Your task to perform on an android device: What's on my calendar tomorrow? Image 0: 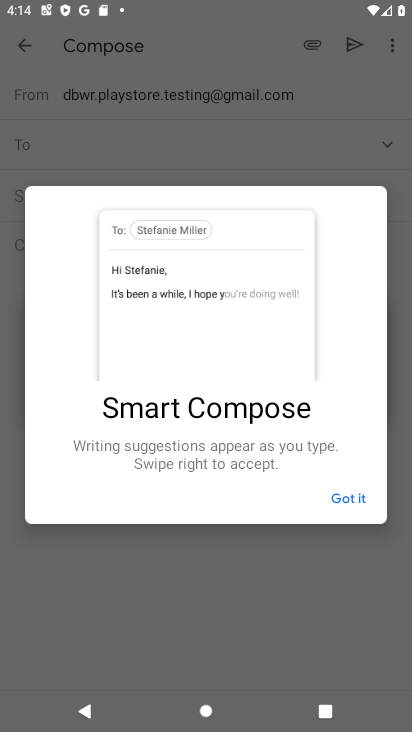
Step 0: press home button
Your task to perform on an android device: What's on my calendar tomorrow? Image 1: 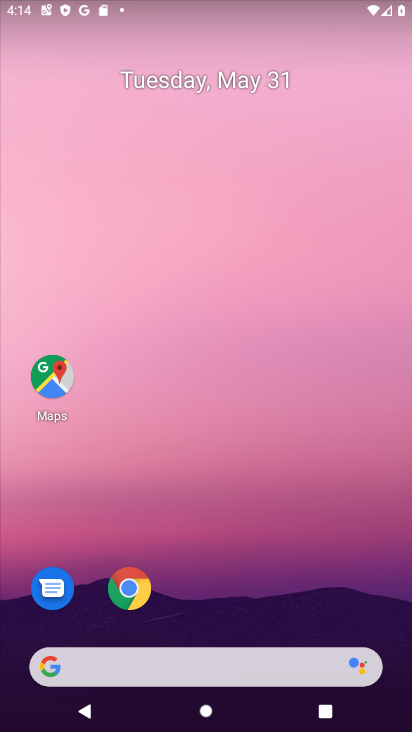
Step 1: click (164, 75)
Your task to perform on an android device: What's on my calendar tomorrow? Image 2: 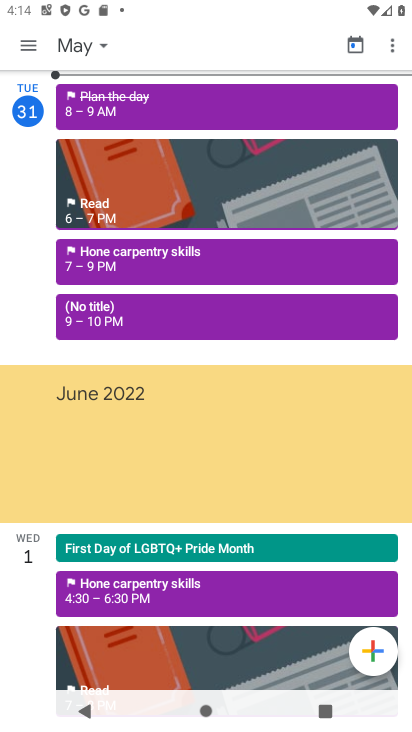
Step 2: click (64, 61)
Your task to perform on an android device: What's on my calendar tomorrow? Image 3: 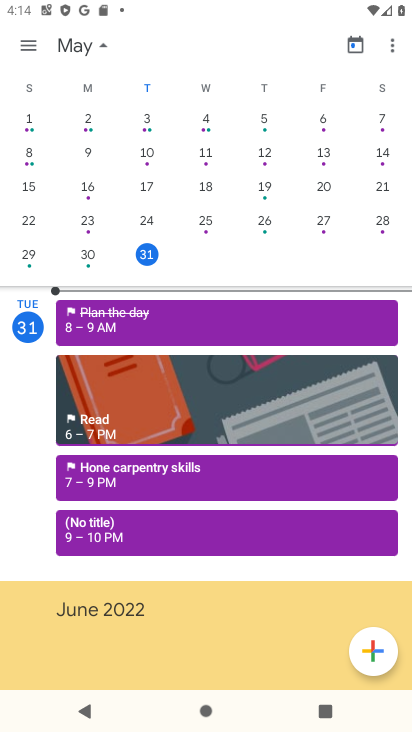
Step 3: drag from (285, 255) to (101, 206)
Your task to perform on an android device: What's on my calendar tomorrow? Image 4: 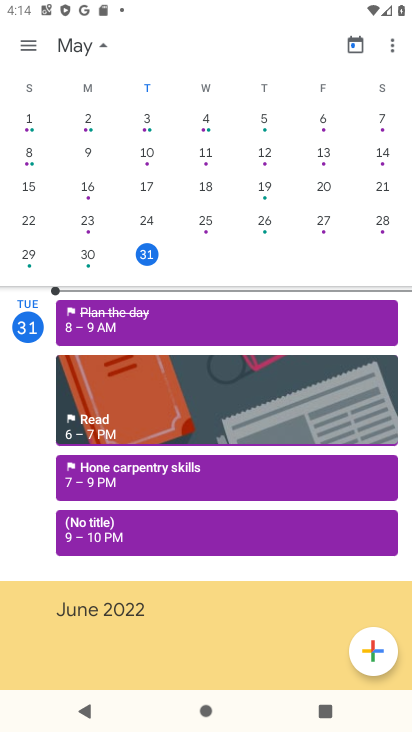
Step 4: click (221, 252)
Your task to perform on an android device: What's on my calendar tomorrow? Image 5: 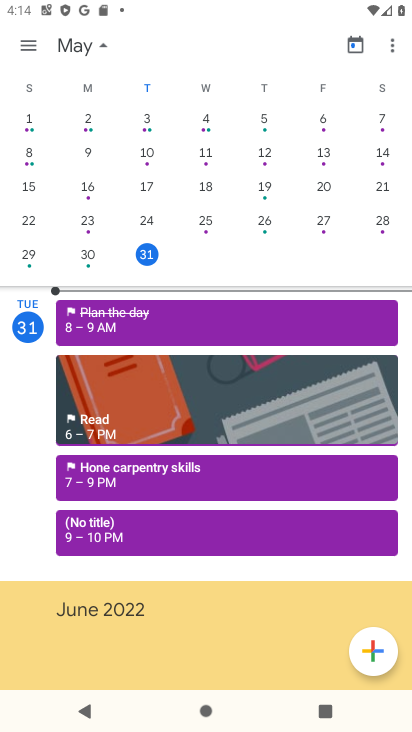
Step 5: drag from (221, 252) to (3, 249)
Your task to perform on an android device: What's on my calendar tomorrow? Image 6: 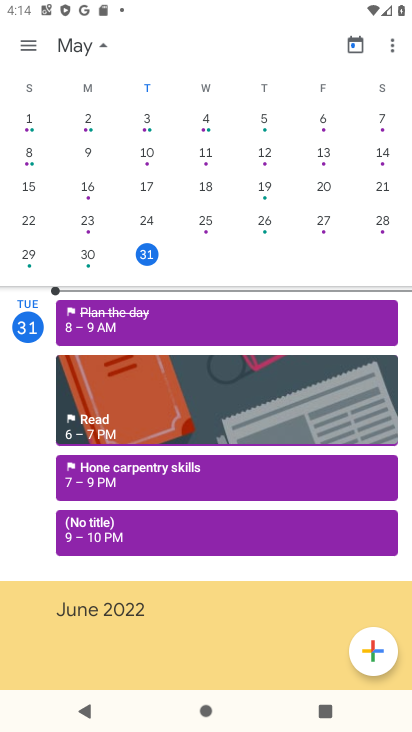
Step 6: drag from (39, 574) to (188, 214)
Your task to perform on an android device: What's on my calendar tomorrow? Image 7: 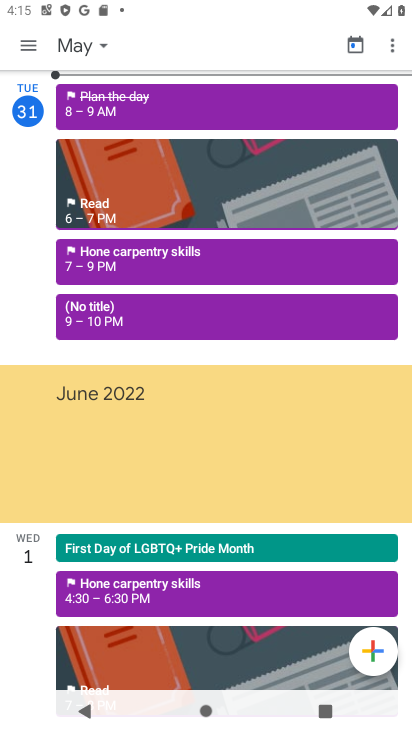
Step 7: click (94, 592)
Your task to perform on an android device: What's on my calendar tomorrow? Image 8: 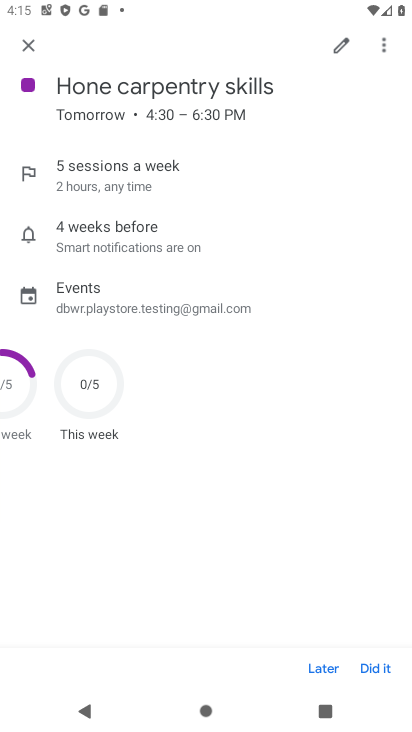
Step 8: task complete